Your task to perform on an android device: Open maps Image 0: 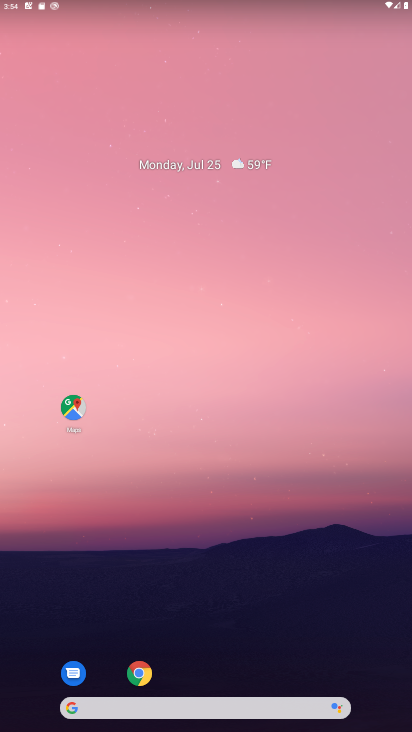
Step 0: click (70, 408)
Your task to perform on an android device: Open maps Image 1: 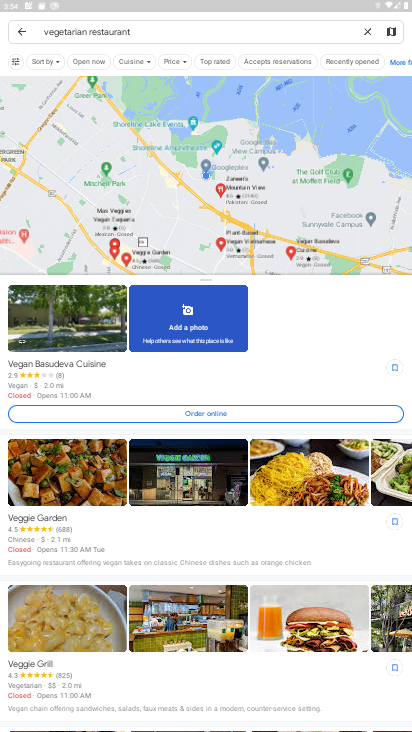
Step 1: task complete